Your task to perform on an android device: check battery use Image 0: 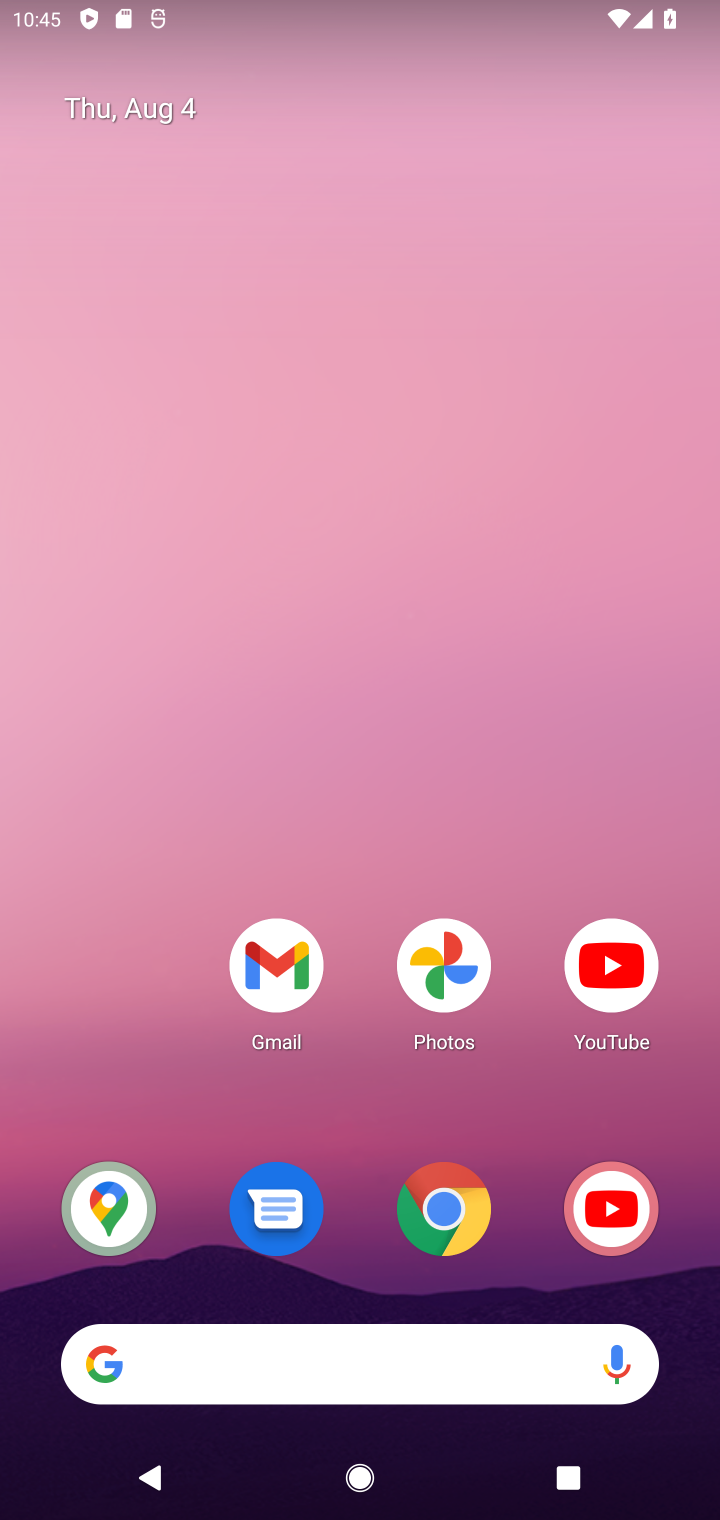
Step 0: drag from (406, 751) to (409, 0)
Your task to perform on an android device: check battery use Image 1: 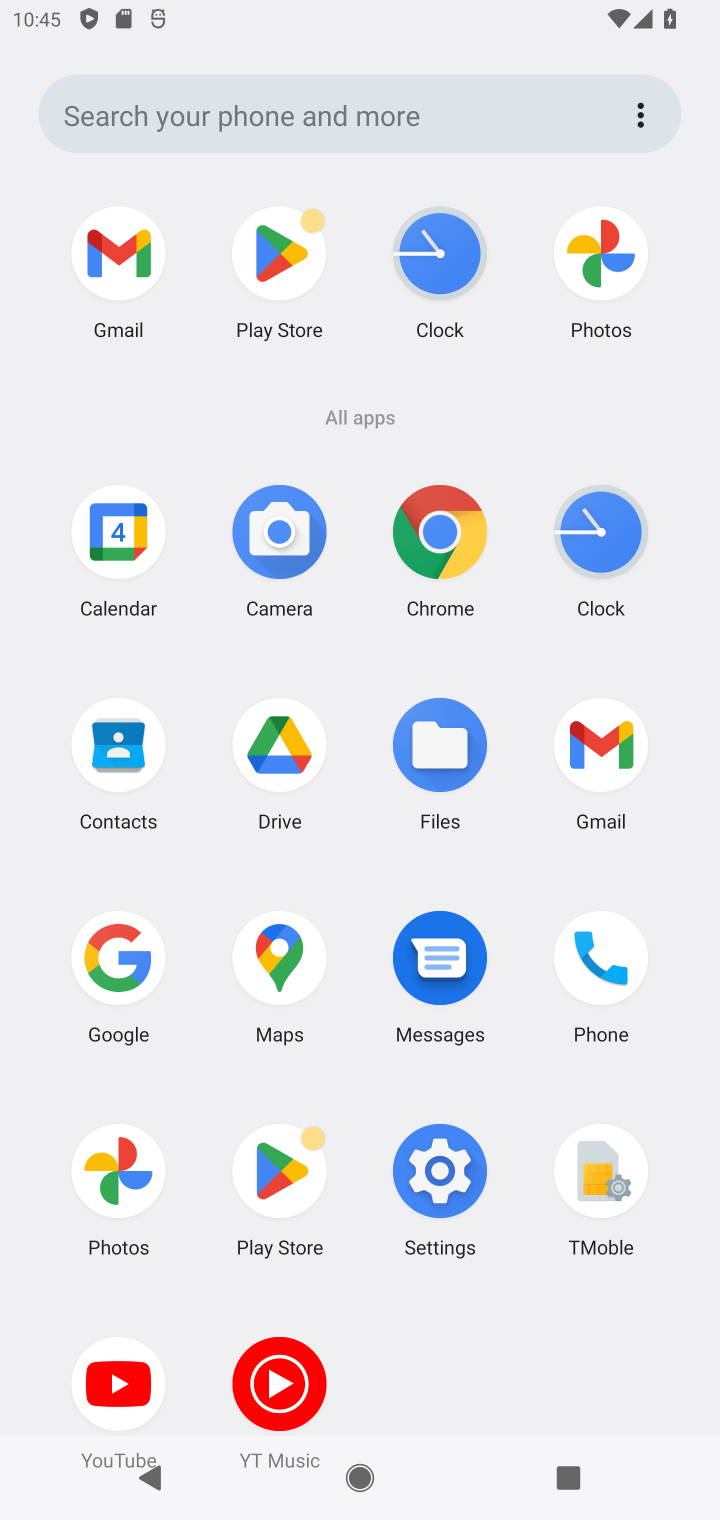
Step 1: click (452, 1178)
Your task to perform on an android device: check battery use Image 2: 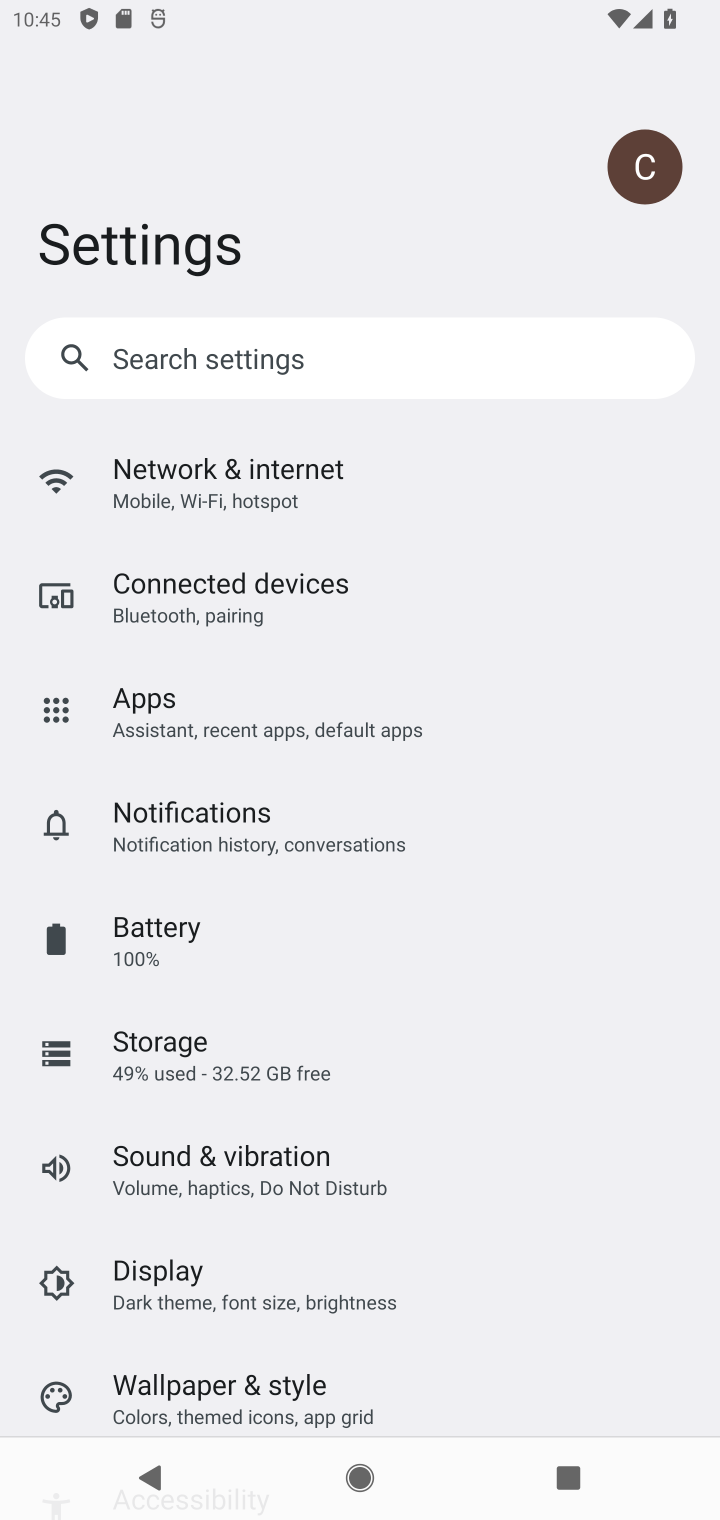
Step 2: click (182, 928)
Your task to perform on an android device: check battery use Image 3: 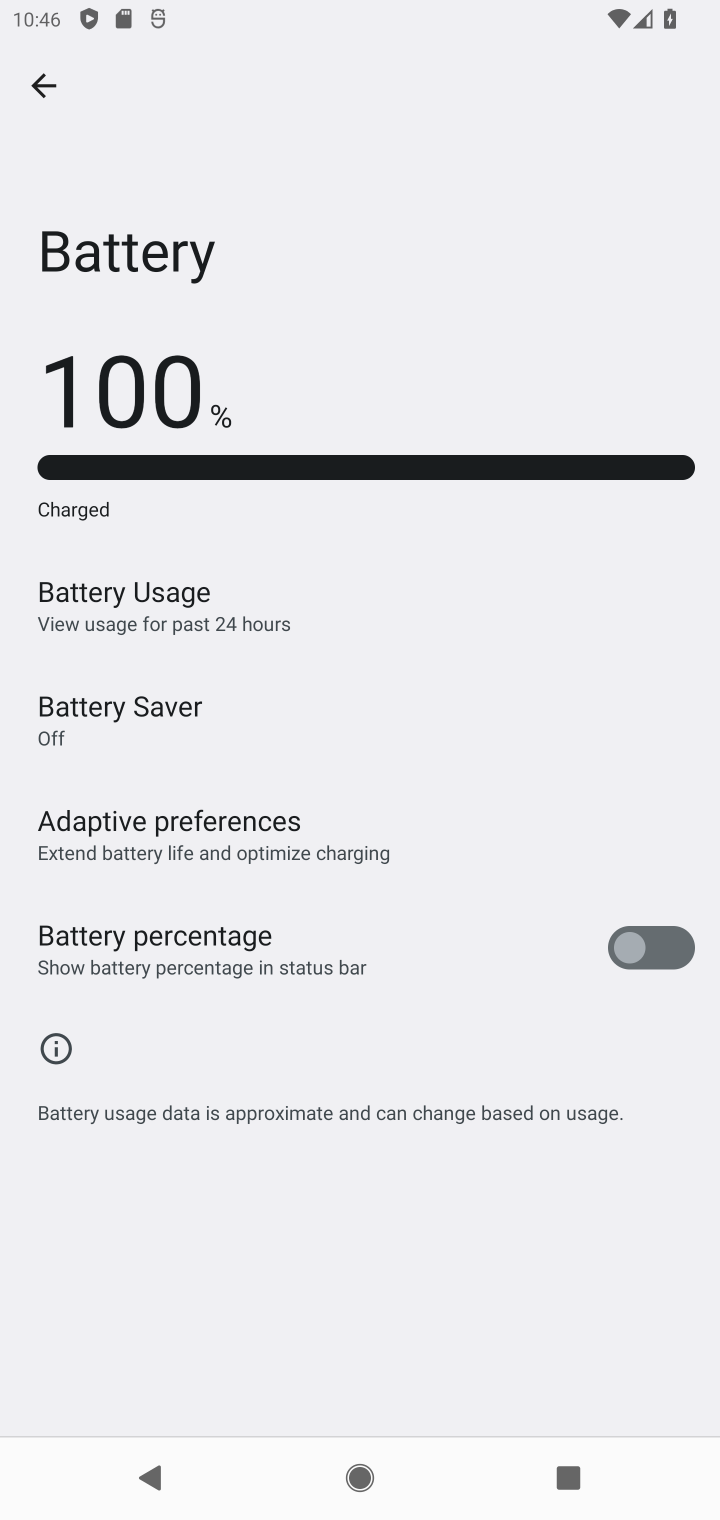
Step 3: task complete